Your task to perform on an android device: Open my contact list Image 0: 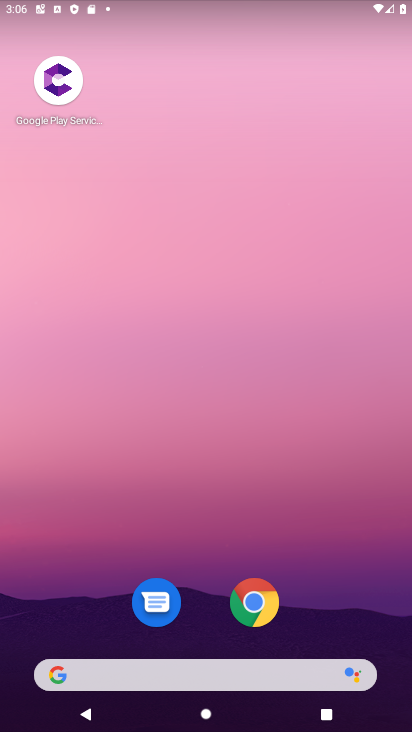
Step 0: drag from (324, 547) to (324, 274)
Your task to perform on an android device: Open my contact list Image 1: 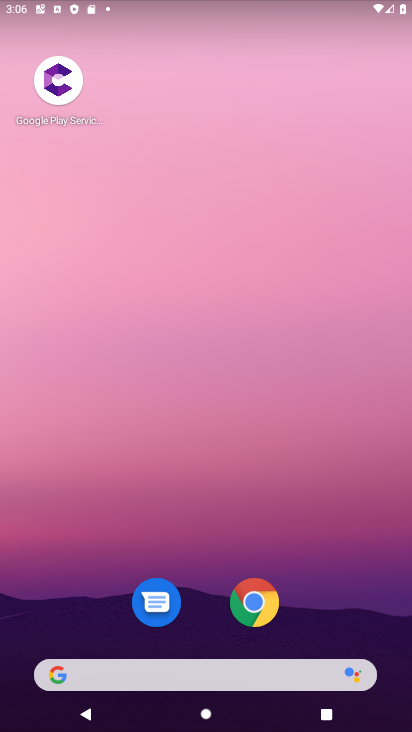
Step 1: drag from (207, 617) to (316, 175)
Your task to perform on an android device: Open my contact list Image 2: 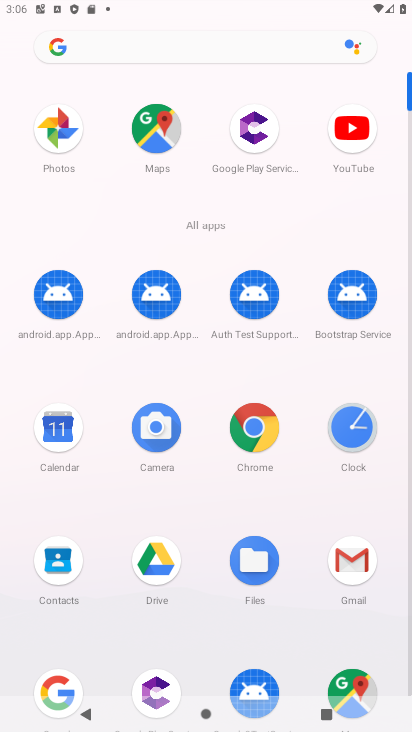
Step 2: click (66, 551)
Your task to perform on an android device: Open my contact list Image 3: 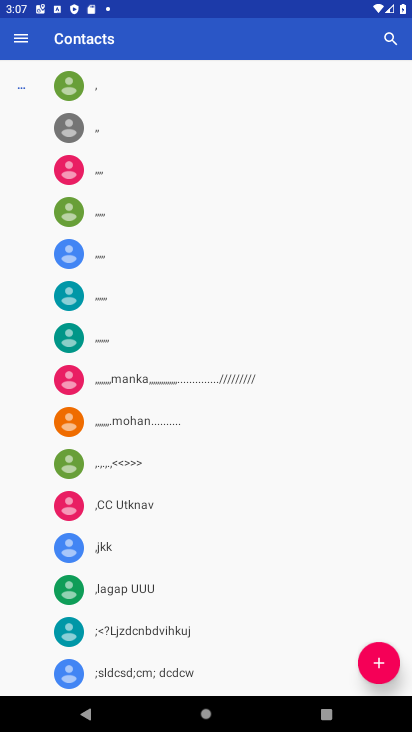
Step 3: task complete